Your task to perform on an android device: turn on wifi Image 0: 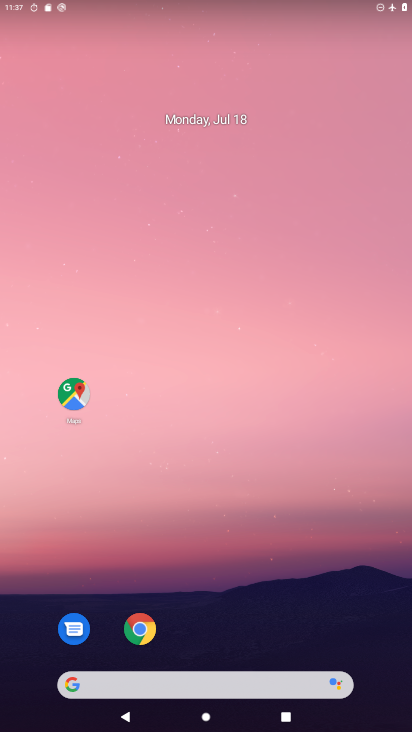
Step 0: drag from (270, 556) to (248, 34)
Your task to perform on an android device: turn on wifi Image 1: 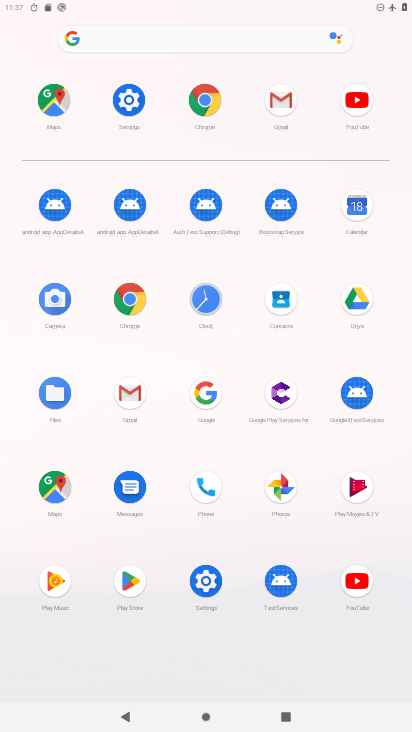
Step 1: click (131, 92)
Your task to perform on an android device: turn on wifi Image 2: 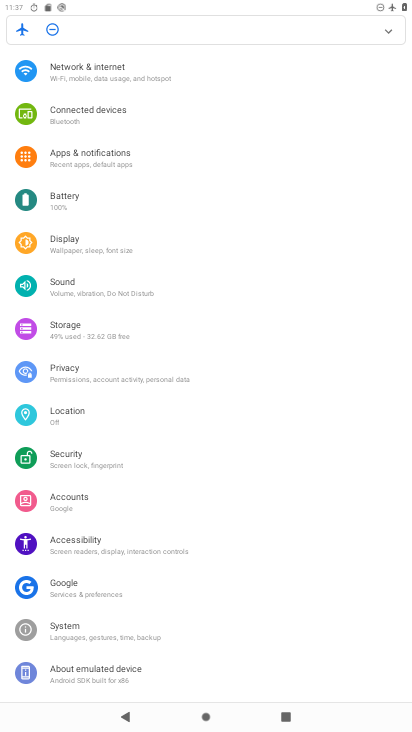
Step 2: click (84, 74)
Your task to perform on an android device: turn on wifi Image 3: 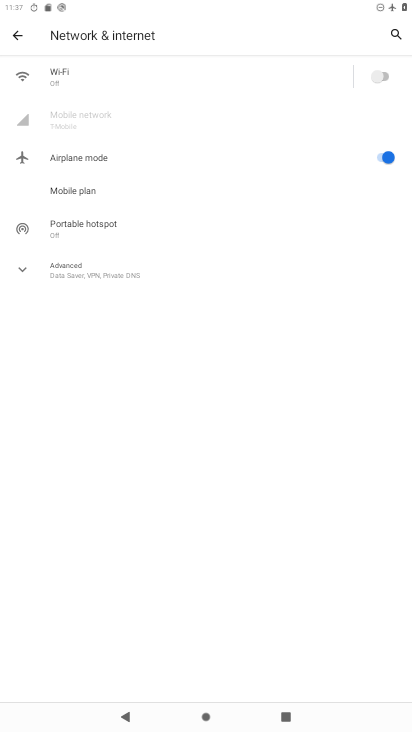
Step 3: click (385, 72)
Your task to perform on an android device: turn on wifi Image 4: 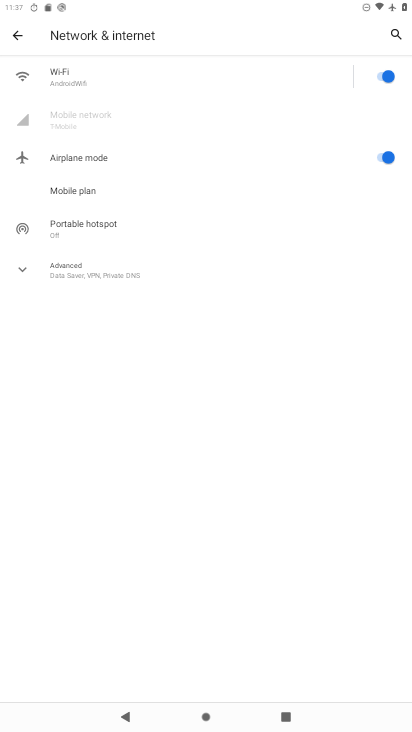
Step 4: task complete